Your task to perform on an android device: Do I have any events this weekend? Image 0: 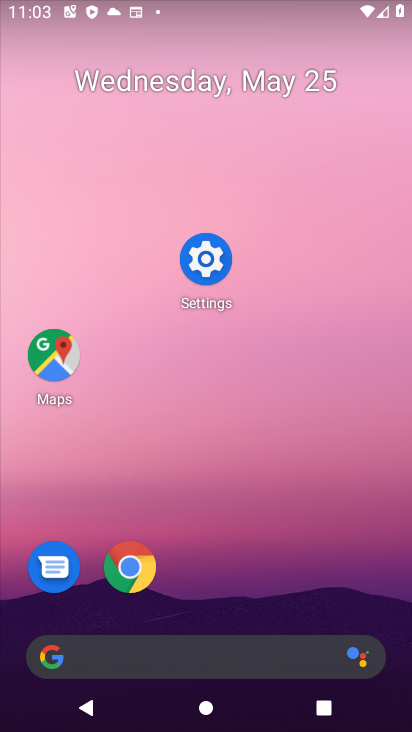
Step 0: drag from (266, 578) to (231, 40)
Your task to perform on an android device: Do I have any events this weekend? Image 1: 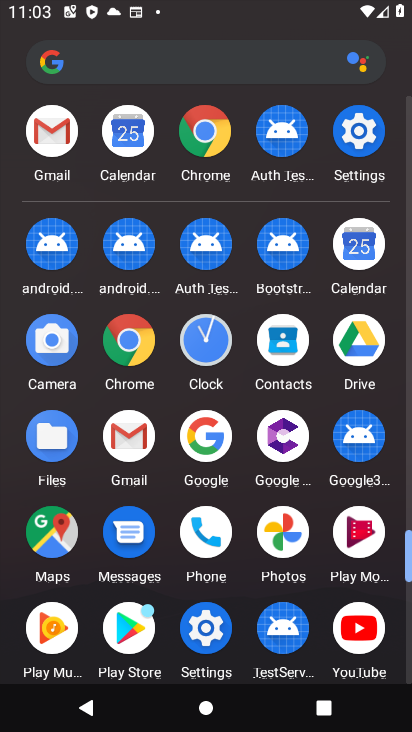
Step 1: click (362, 250)
Your task to perform on an android device: Do I have any events this weekend? Image 2: 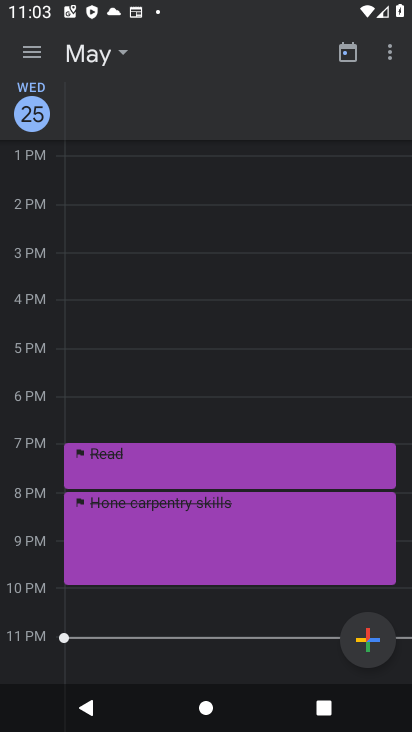
Step 2: click (112, 58)
Your task to perform on an android device: Do I have any events this weekend? Image 3: 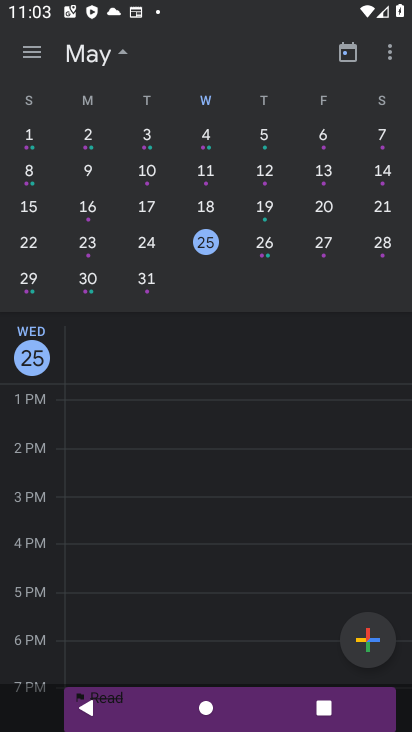
Step 3: click (35, 54)
Your task to perform on an android device: Do I have any events this weekend? Image 4: 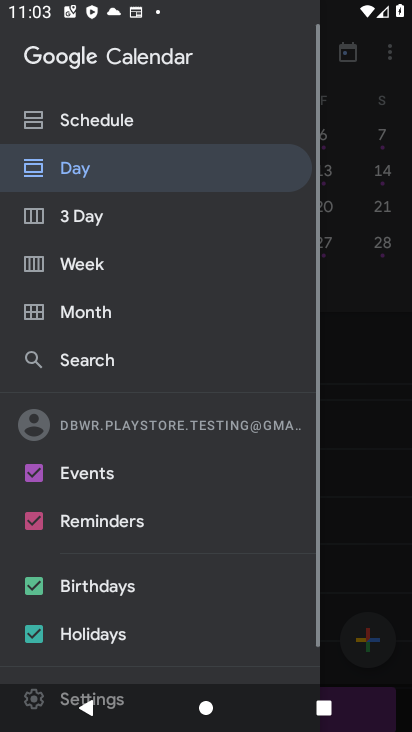
Step 4: click (116, 262)
Your task to perform on an android device: Do I have any events this weekend? Image 5: 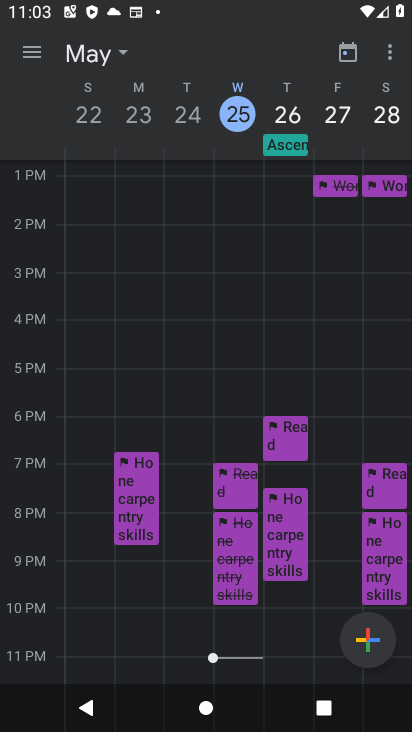
Step 5: task complete